Your task to perform on an android device: Go to accessibility settings Image 0: 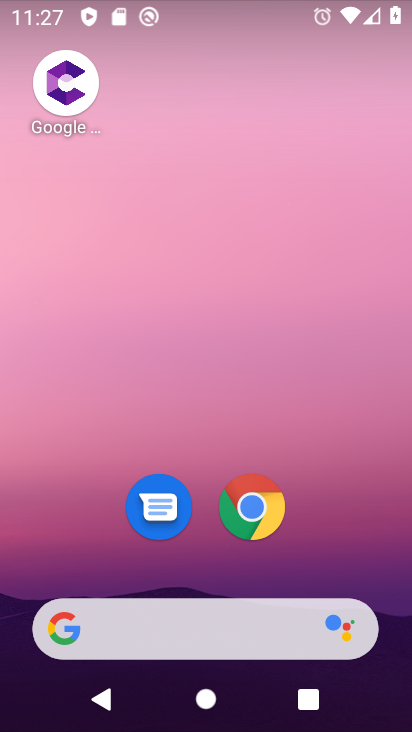
Step 0: drag from (231, 726) to (232, 71)
Your task to perform on an android device: Go to accessibility settings Image 1: 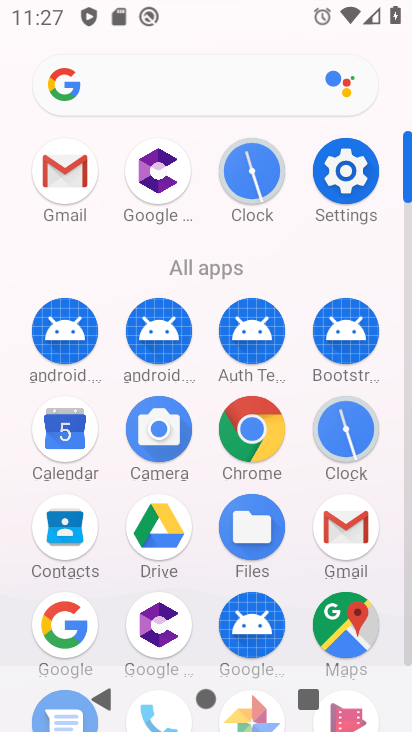
Step 1: click (344, 158)
Your task to perform on an android device: Go to accessibility settings Image 2: 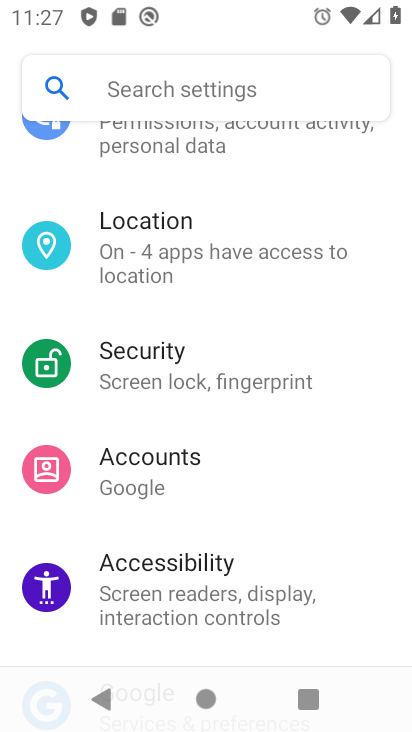
Step 2: click (150, 594)
Your task to perform on an android device: Go to accessibility settings Image 3: 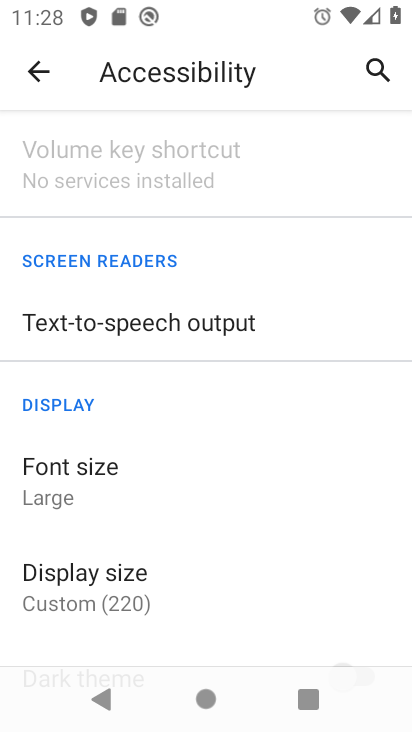
Step 3: task complete